Your task to perform on an android device: uninstall "Etsy: Buy & Sell Unique Items" Image 0: 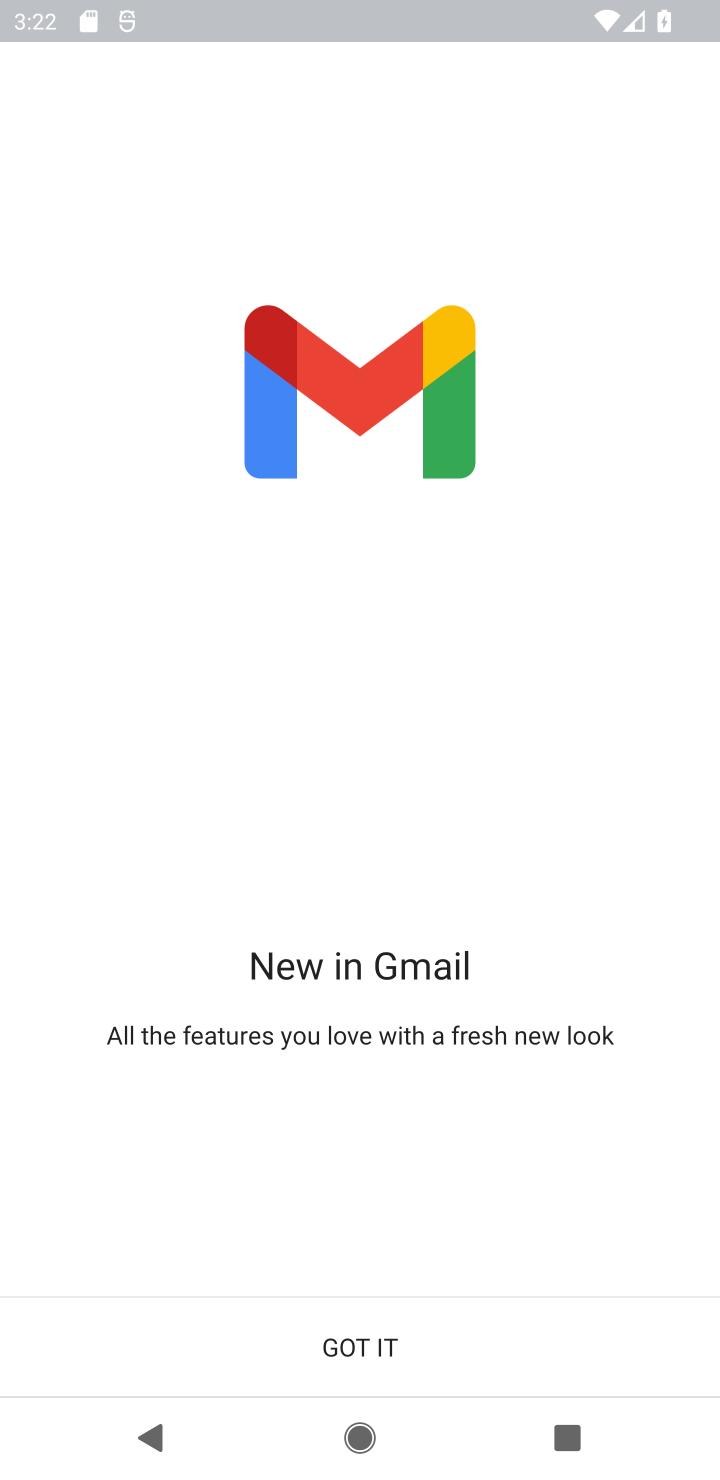
Step 0: press home button
Your task to perform on an android device: uninstall "Etsy: Buy & Sell Unique Items" Image 1: 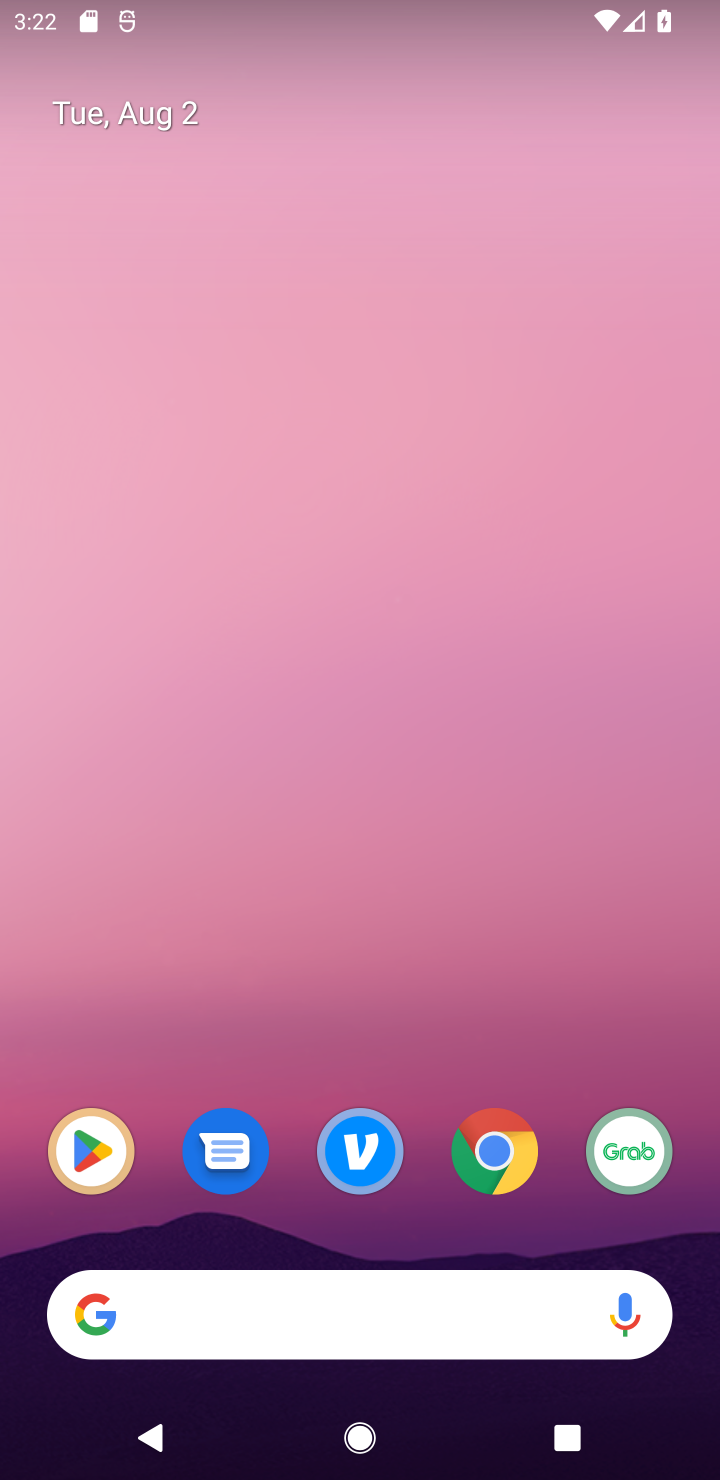
Step 1: drag from (381, 1196) to (346, 401)
Your task to perform on an android device: uninstall "Etsy: Buy & Sell Unique Items" Image 2: 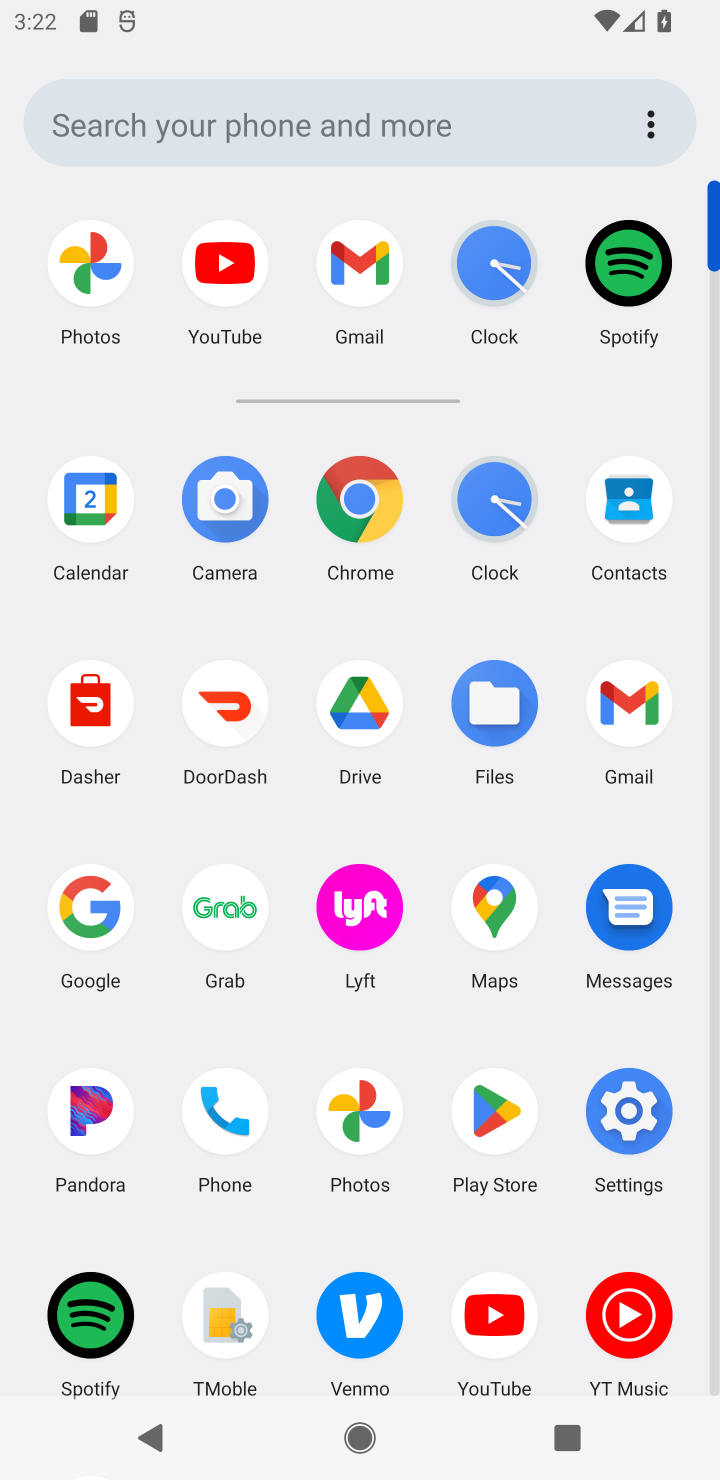
Step 2: click (527, 1147)
Your task to perform on an android device: uninstall "Etsy: Buy & Sell Unique Items" Image 3: 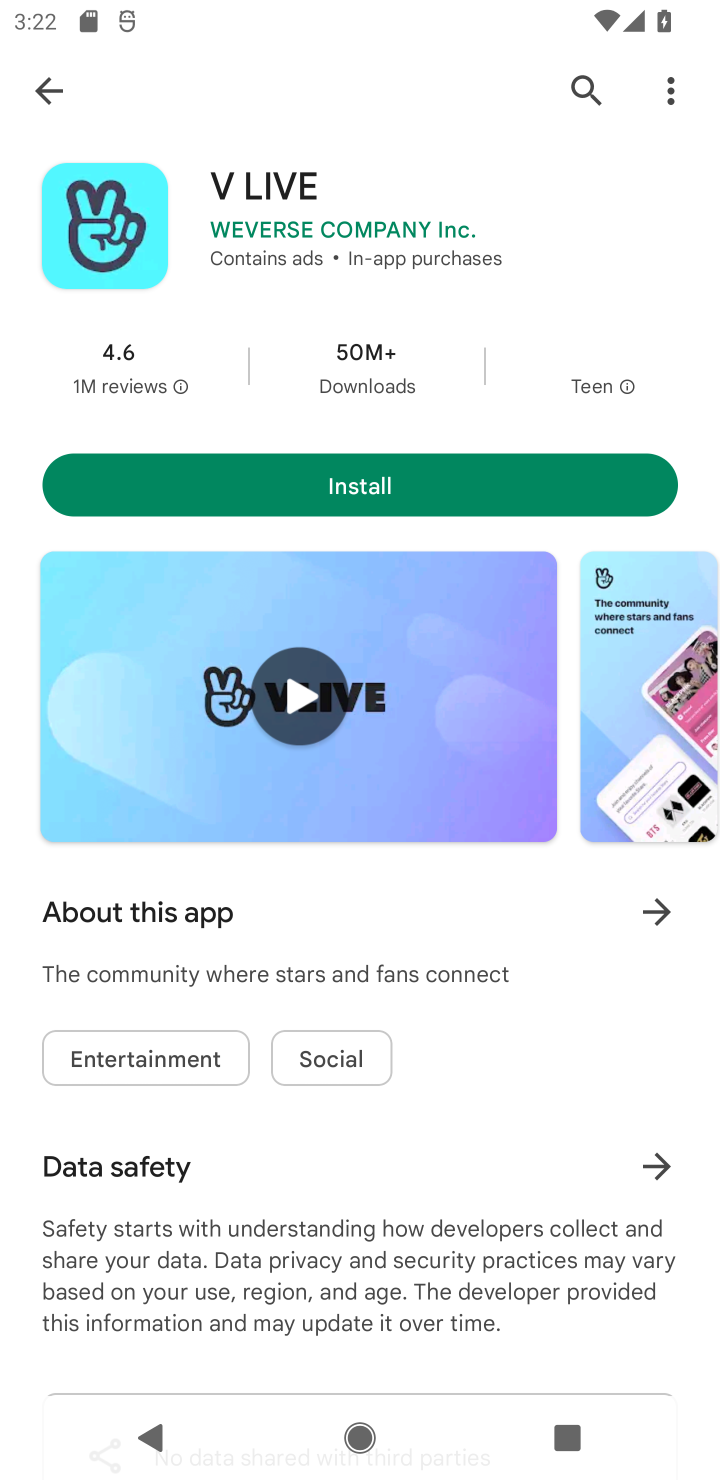
Step 3: click (28, 102)
Your task to perform on an android device: uninstall "Etsy: Buy & Sell Unique Items" Image 4: 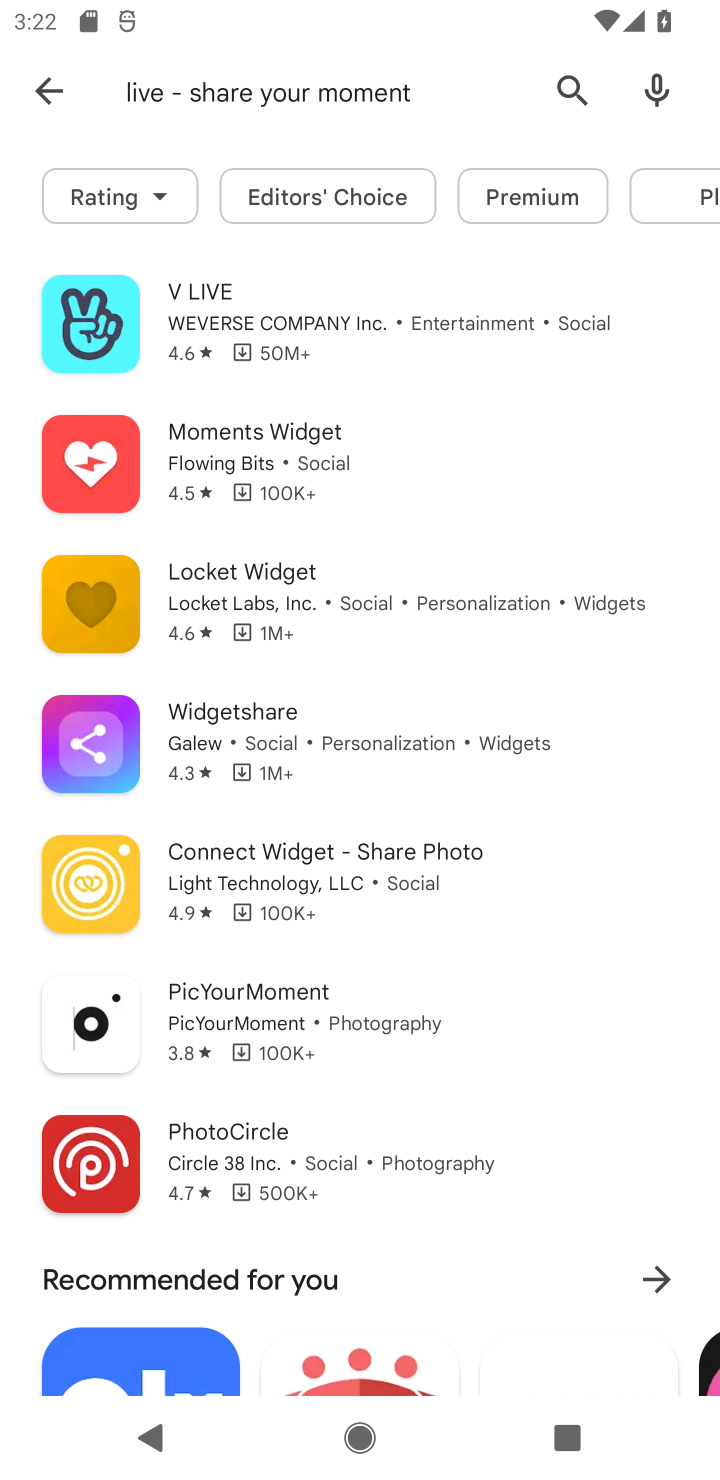
Step 4: click (61, 102)
Your task to perform on an android device: uninstall "Etsy: Buy & Sell Unique Items" Image 5: 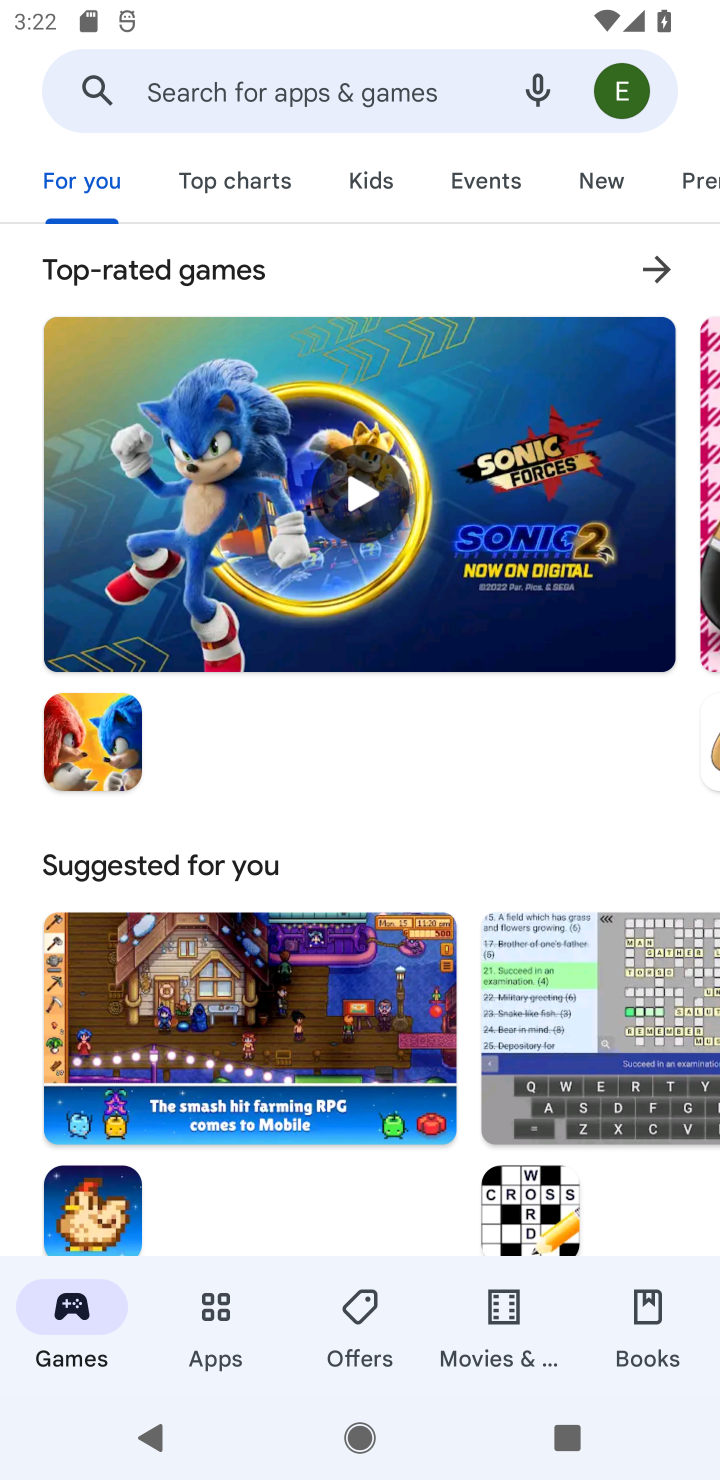
Step 5: click (177, 84)
Your task to perform on an android device: uninstall "Etsy: Buy & Sell Unique Items" Image 6: 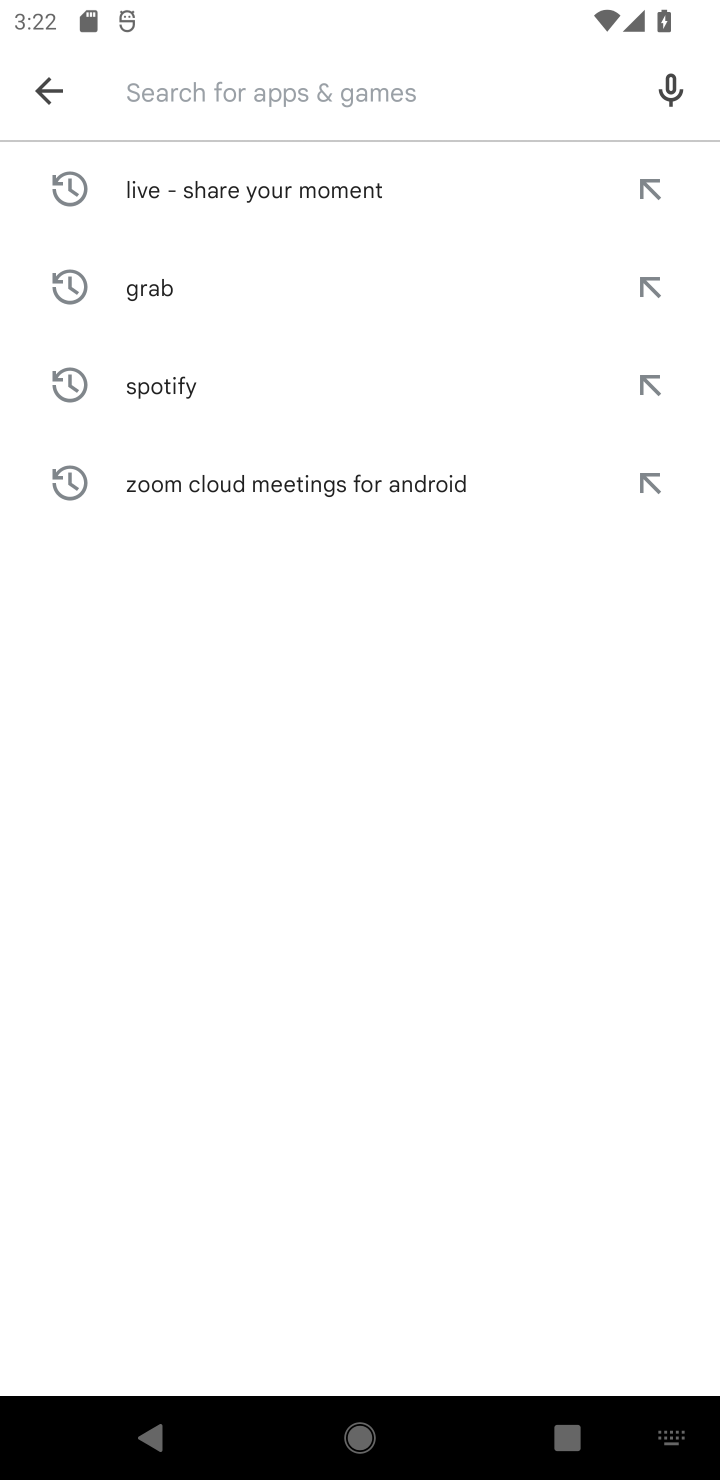
Step 6: type "Etsy: Buy & Sell Unique Items"
Your task to perform on an android device: uninstall "Etsy: Buy & Sell Unique Items" Image 7: 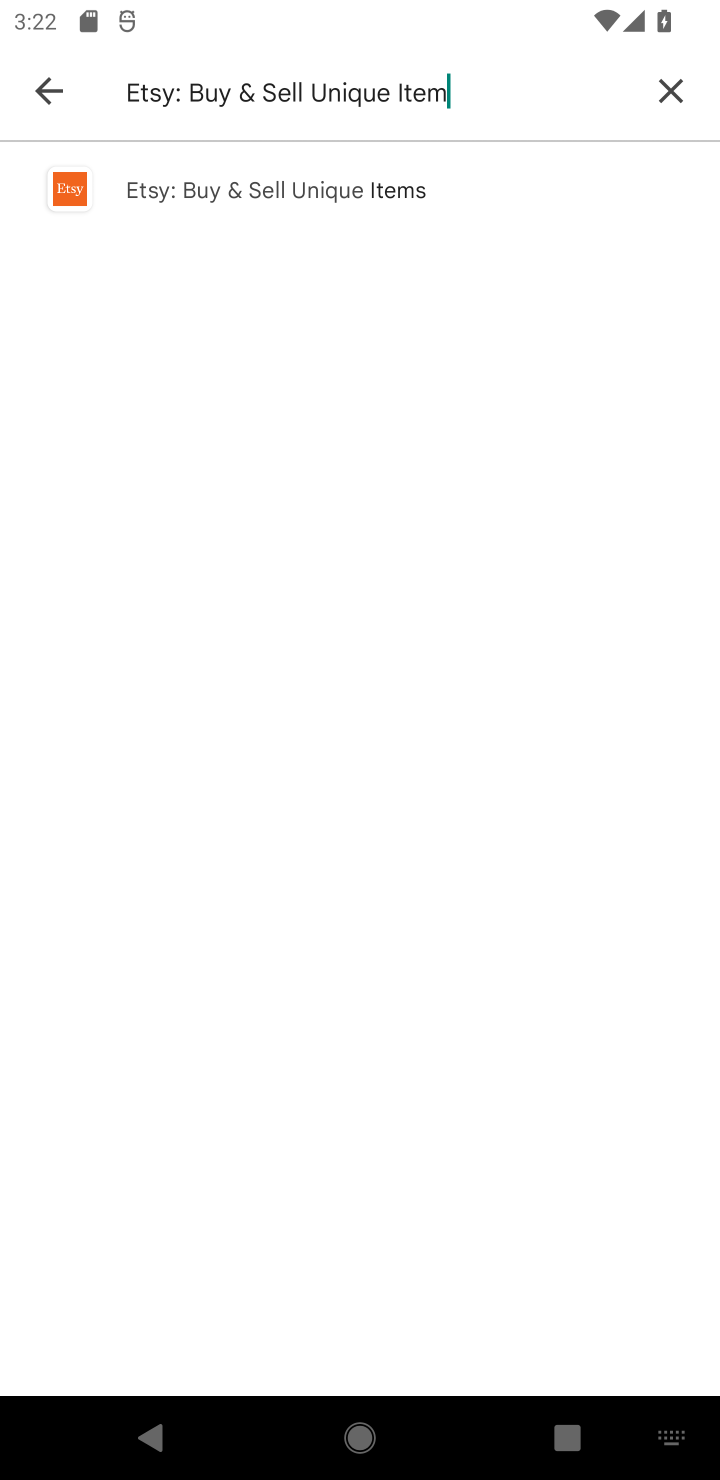
Step 7: type ""
Your task to perform on an android device: uninstall "Etsy: Buy & Sell Unique Items" Image 8: 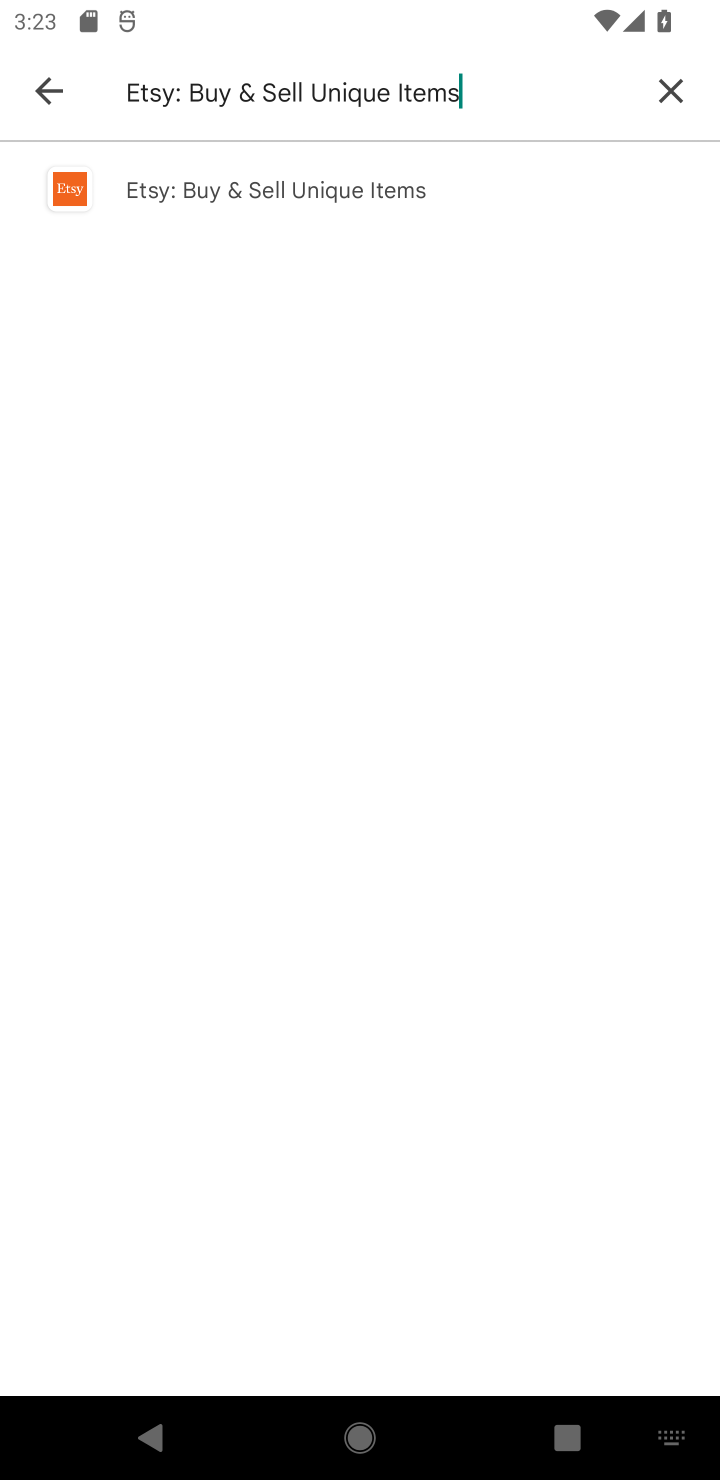
Step 8: click (131, 171)
Your task to perform on an android device: uninstall "Etsy: Buy & Sell Unique Items" Image 9: 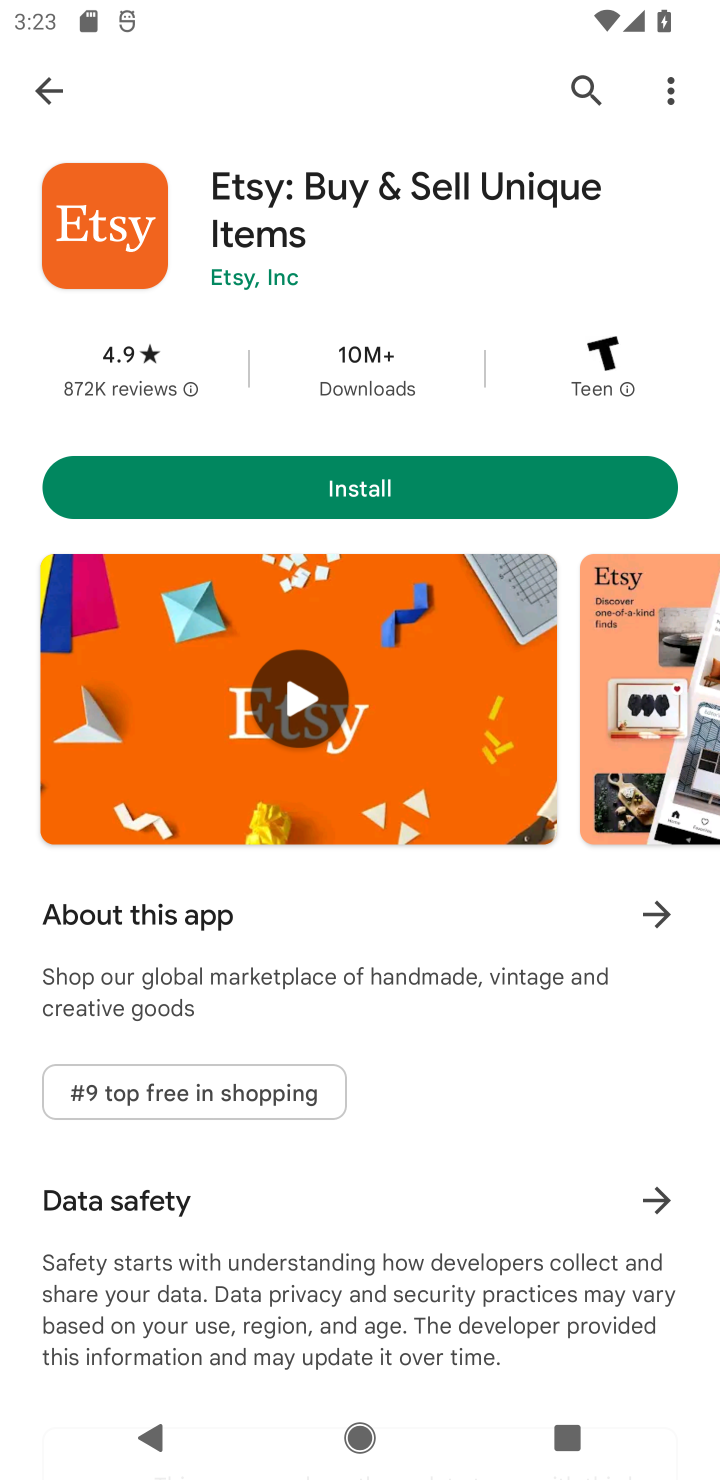
Step 9: task complete